Your task to perform on an android device: Open battery settings Image 0: 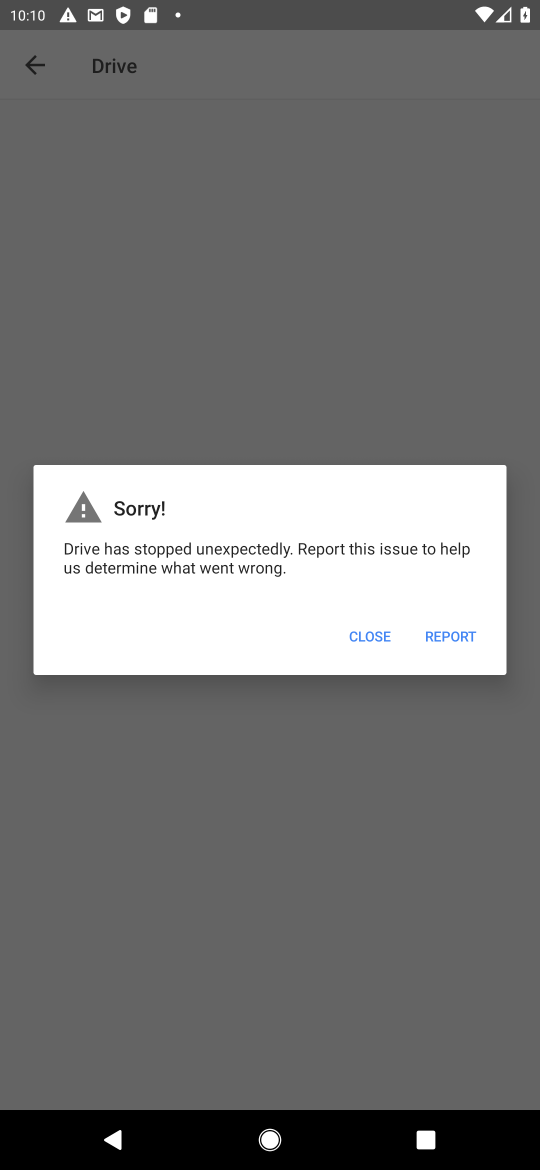
Step 0: press home button
Your task to perform on an android device: Open battery settings Image 1: 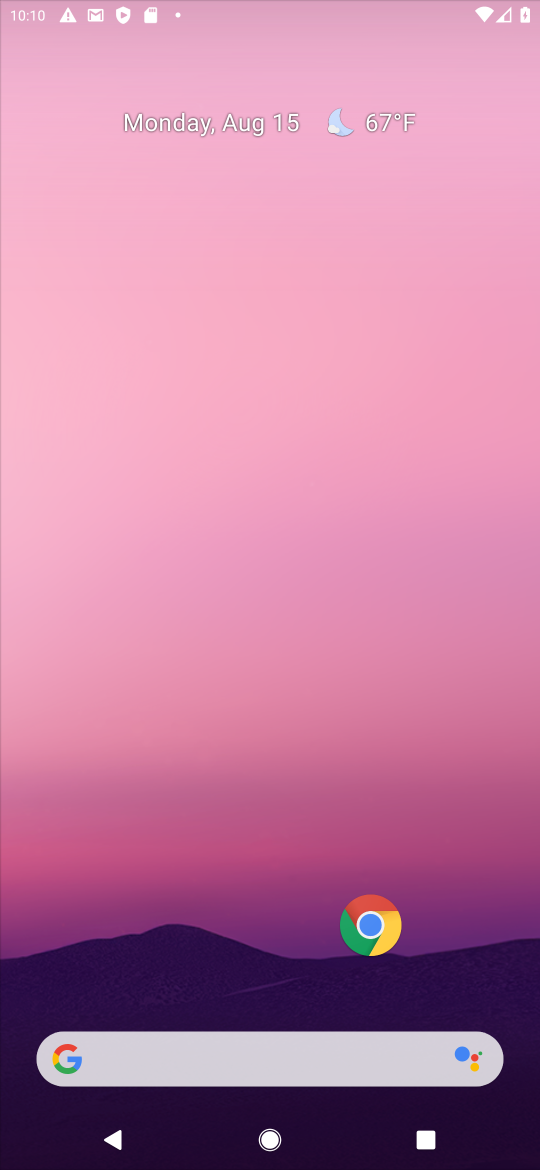
Step 1: drag from (207, 967) to (290, 54)
Your task to perform on an android device: Open battery settings Image 2: 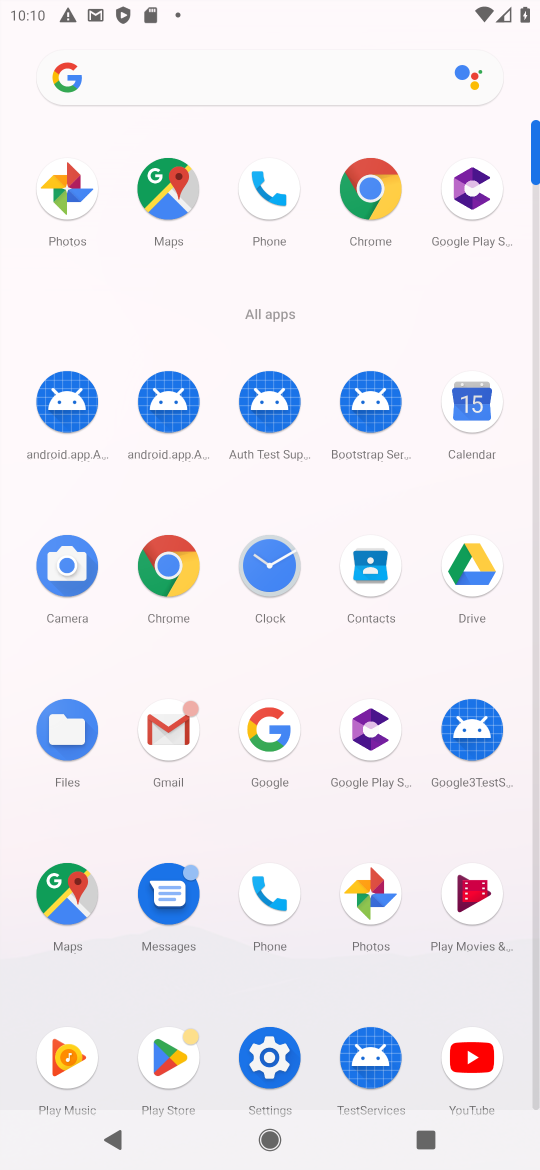
Step 2: click (265, 1073)
Your task to perform on an android device: Open battery settings Image 3: 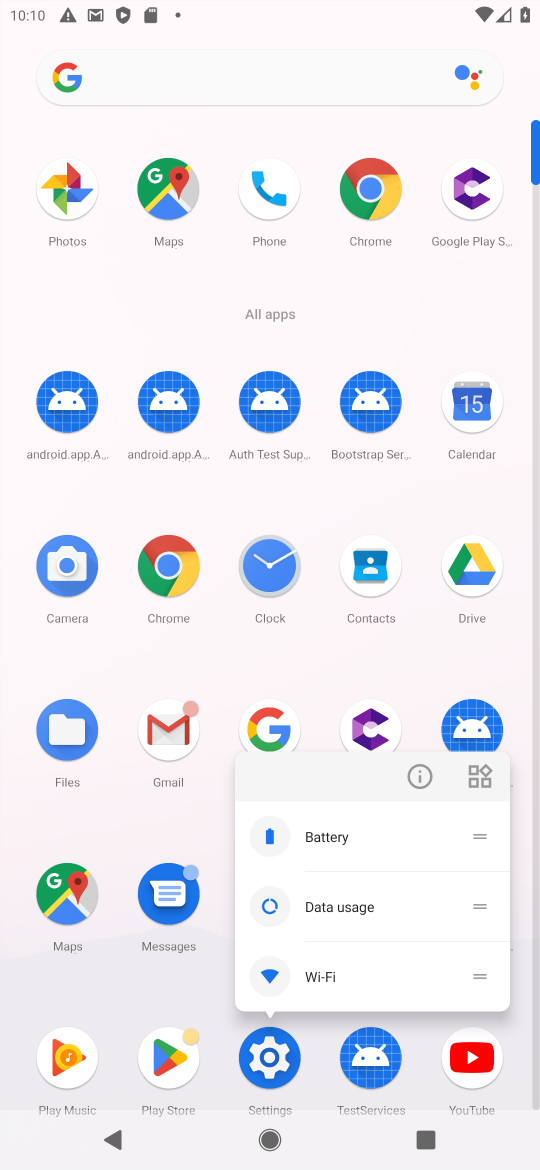
Step 3: click (257, 1065)
Your task to perform on an android device: Open battery settings Image 4: 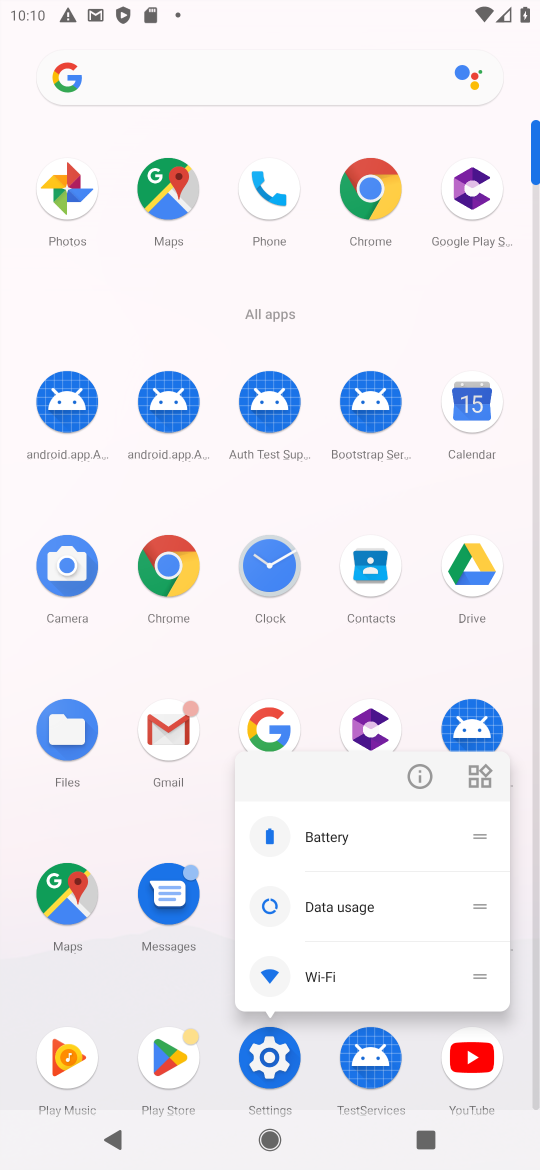
Step 4: click (270, 1081)
Your task to perform on an android device: Open battery settings Image 5: 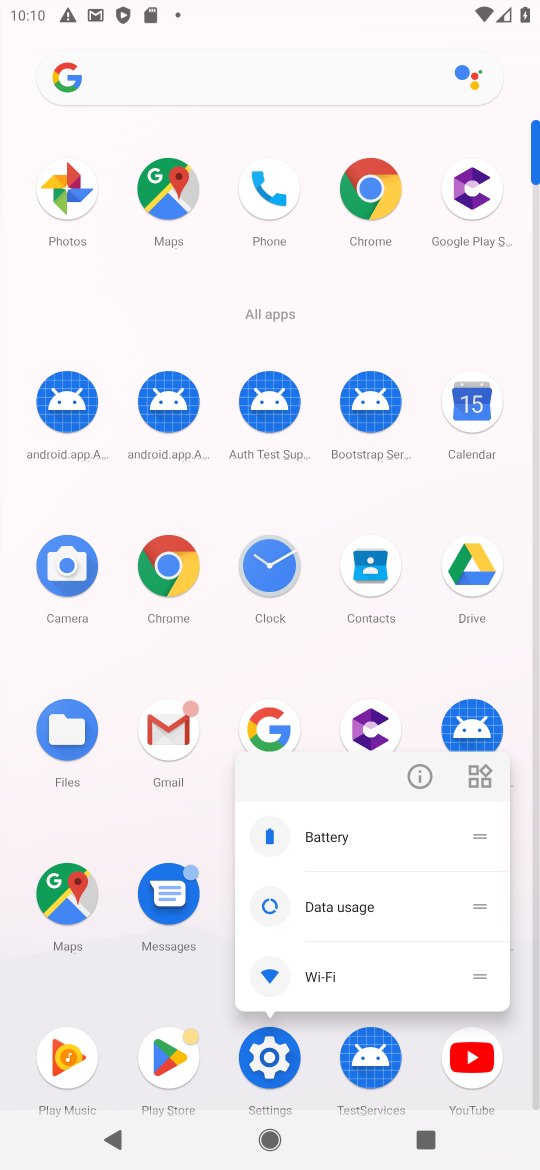
Step 5: click (266, 1073)
Your task to perform on an android device: Open battery settings Image 6: 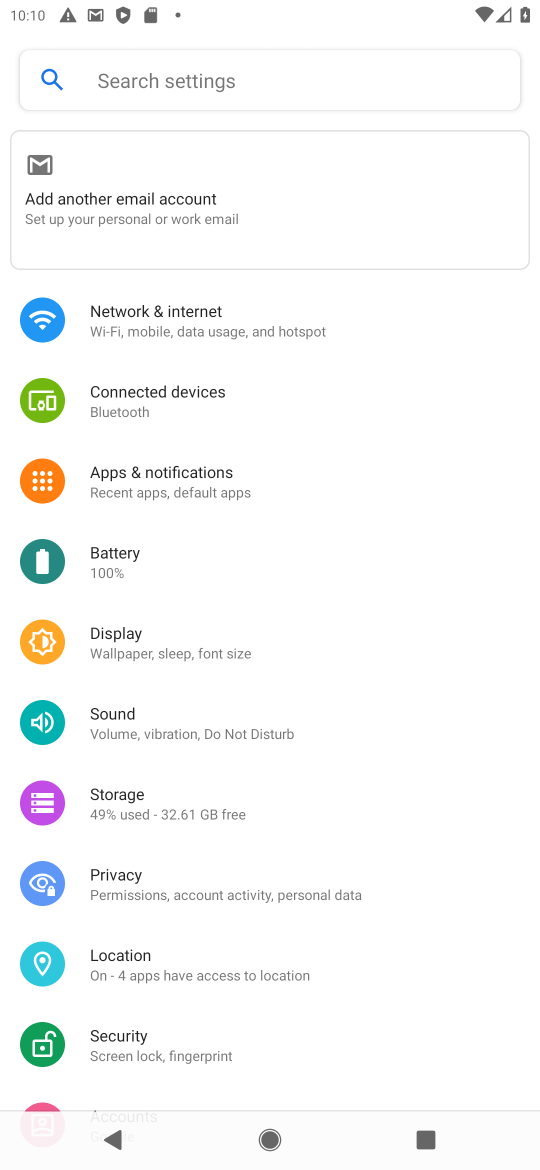
Step 6: click (115, 584)
Your task to perform on an android device: Open battery settings Image 7: 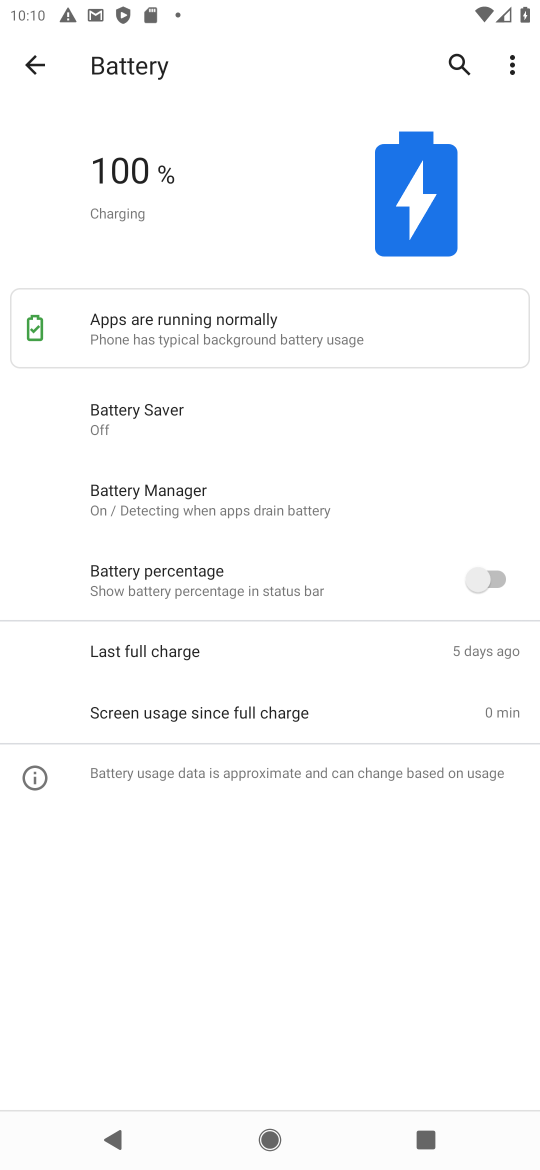
Step 7: task complete